Your task to perform on an android device: Find coffee shops on Maps Image 0: 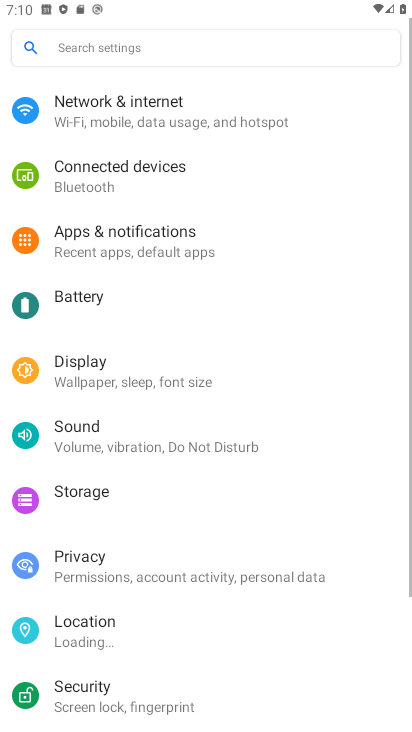
Step 0: press home button
Your task to perform on an android device: Find coffee shops on Maps Image 1: 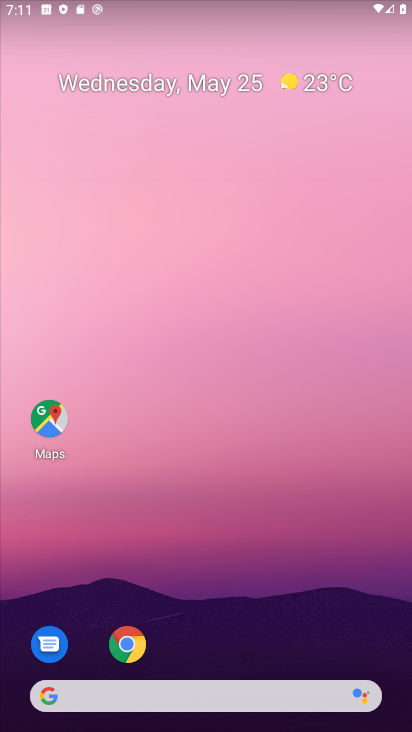
Step 1: drag from (255, 673) to (200, 195)
Your task to perform on an android device: Find coffee shops on Maps Image 2: 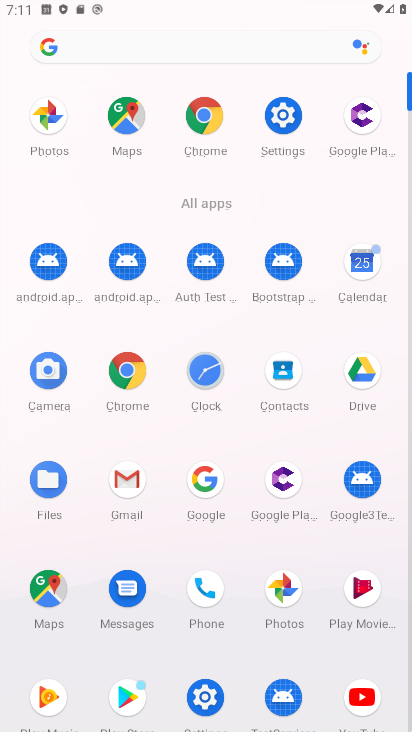
Step 2: click (138, 127)
Your task to perform on an android device: Find coffee shops on Maps Image 3: 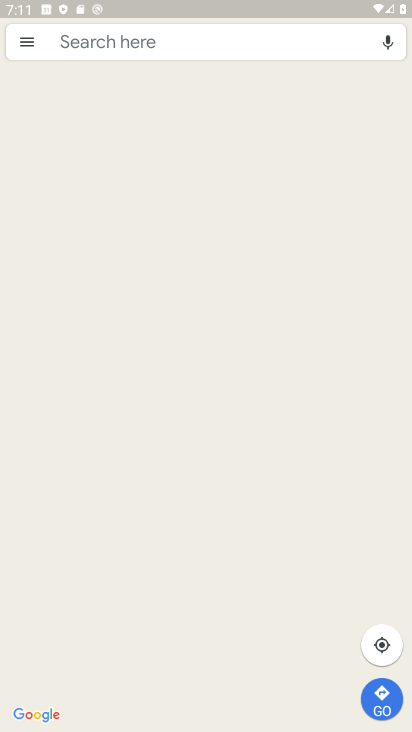
Step 3: click (183, 48)
Your task to perform on an android device: Find coffee shops on Maps Image 4: 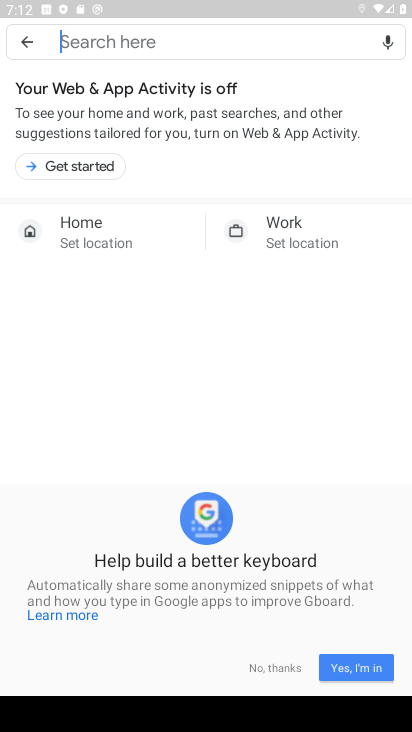
Step 4: click (275, 672)
Your task to perform on an android device: Find coffee shops on Maps Image 5: 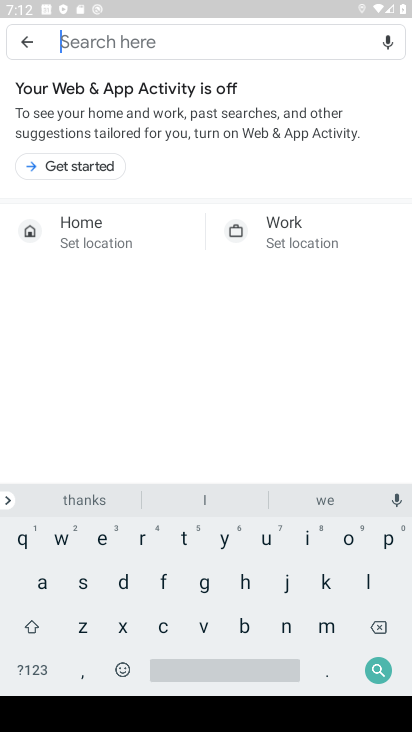
Step 5: click (74, 165)
Your task to perform on an android device: Find coffee shops on Maps Image 6: 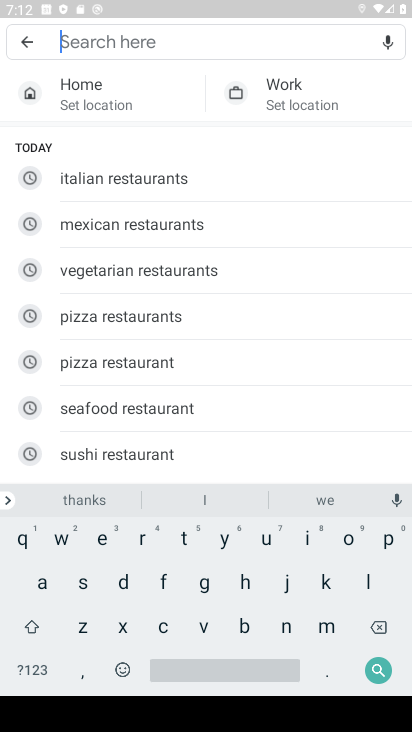
Step 6: click (160, 623)
Your task to perform on an android device: Find coffee shops on Maps Image 7: 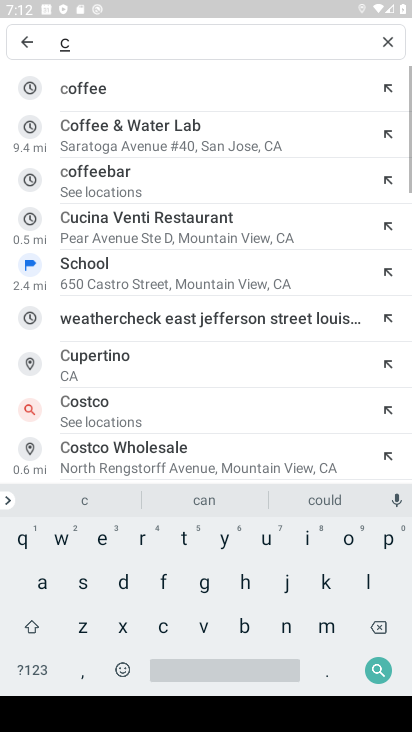
Step 7: click (125, 92)
Your task to perform on an android device: Find coffee shops on Maps Image 8: 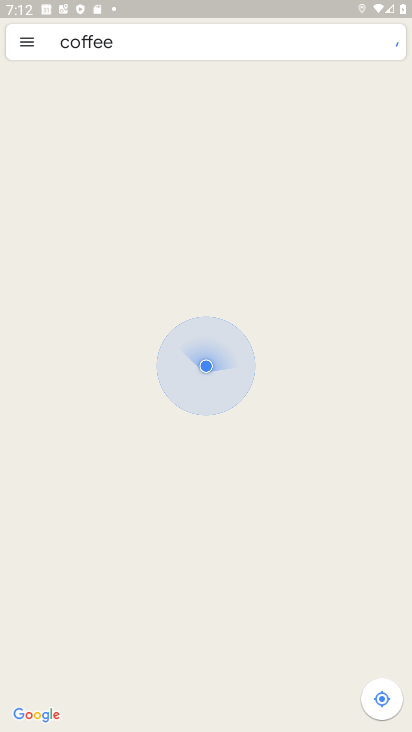
Step 8: task complete